Your task to perform on an android device: toggle sleep mode Image 0: 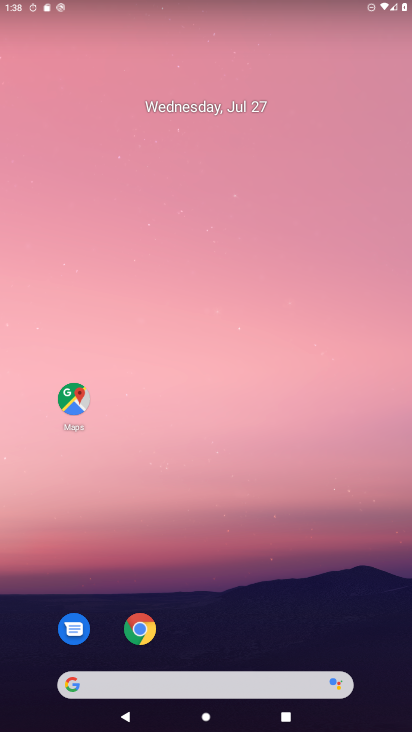
Step 0: press home button
Your task to perform on an android device: toggle sleep mode Image 1: 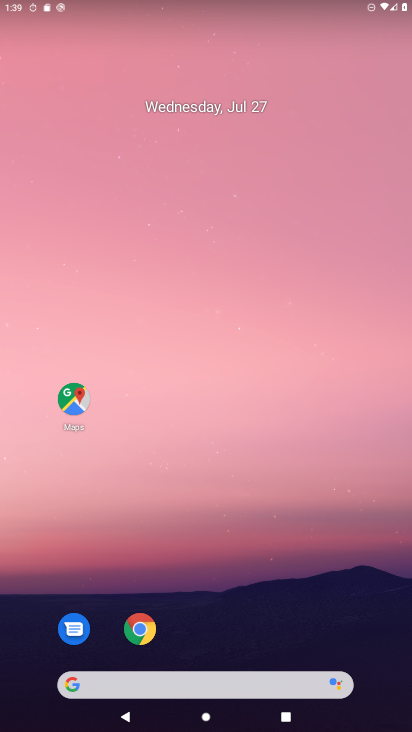
Step 1: drag from (235, 558) to (222, 8)
Your task to perform on an android device: toggle sleep mode Image 2: 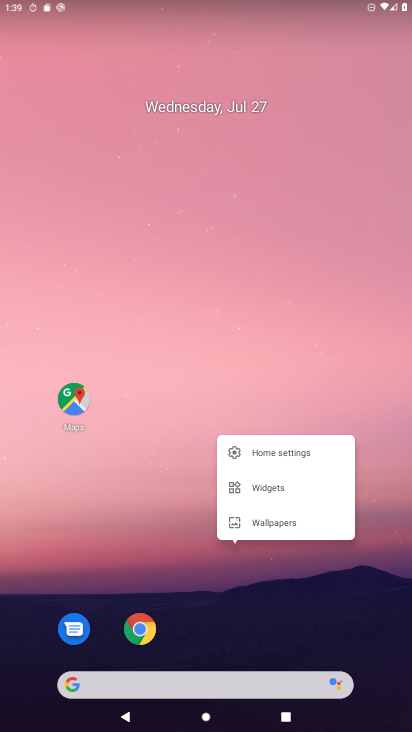
Step 2: drag from (195, 646) to (284, 43)
Your task to perform on an android device: toggle sleep mode Image 3: 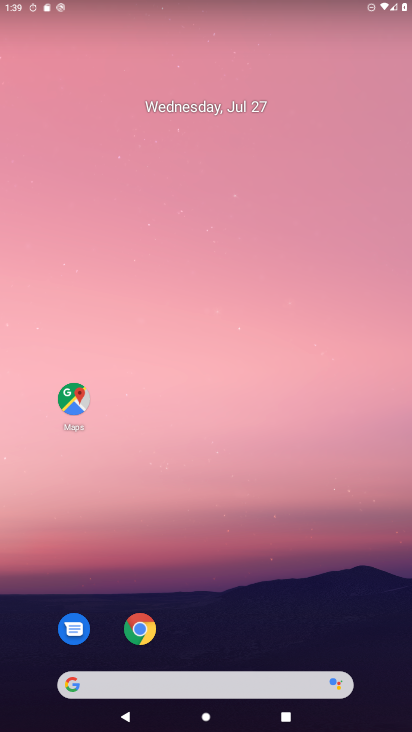
Step 3: drag from (271, 633) to (326, 34)
Your task to perform on an android device: toggle sleep mode Image 4: 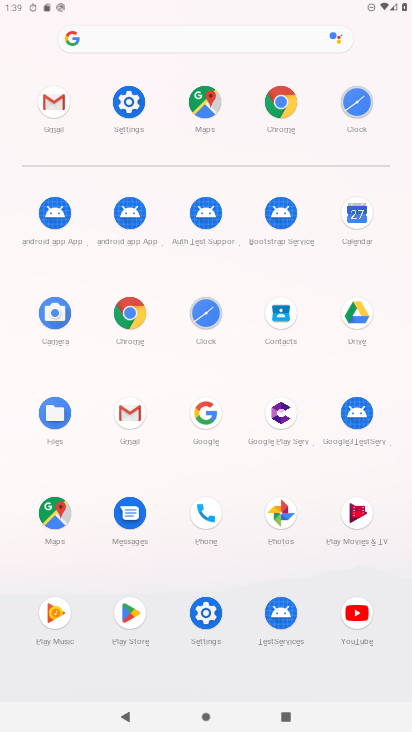
Step 4: click (127, 96)
Your task to perform on an android device: toggle sleep mode Image 5: 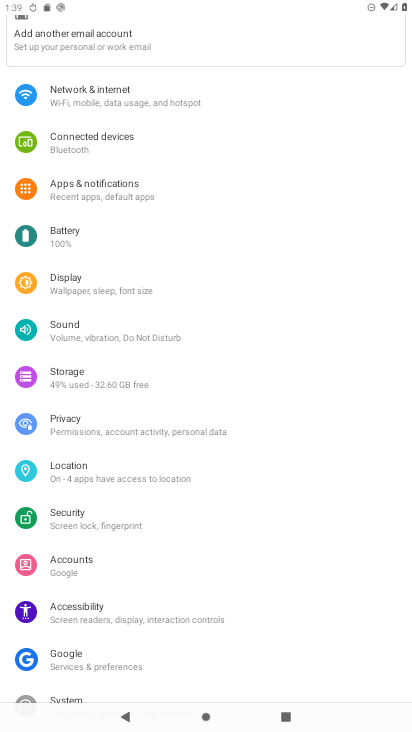
Step 5: click (70, 284)
Your task to perform on an android device: toggle sleep mode Image 6: 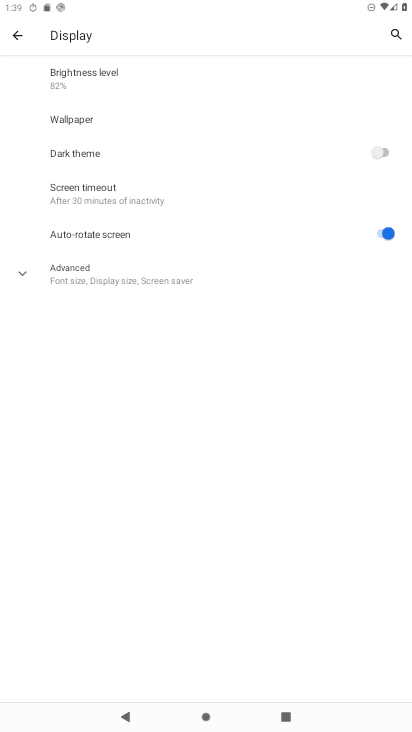
Step 6: task complete